Your task to perform on an android device: Go to Android settings Image 0: 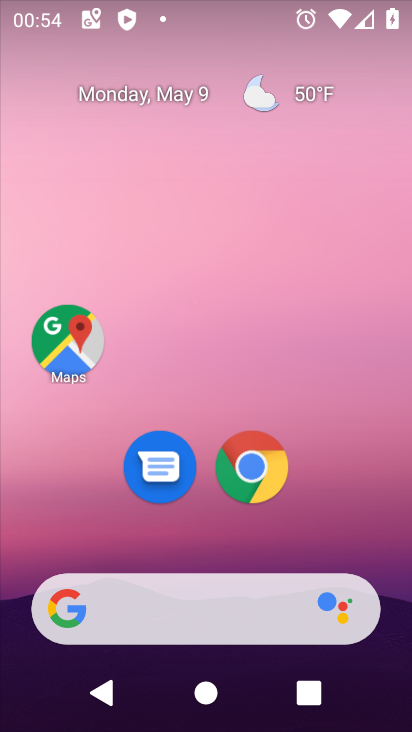
Step 0: drag from (204, 548) to (221, 48)
Your task to perform on an android device: Go to Android settings Image 1: 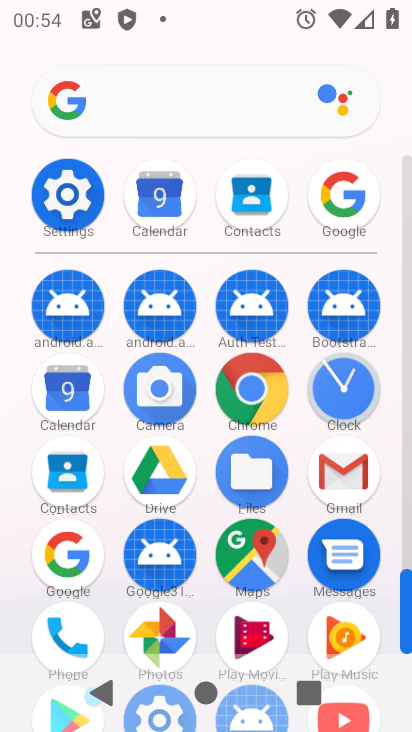
Step 1: click (63, 196)
Your task to perform on an android device: Go to Android settings Image 2: 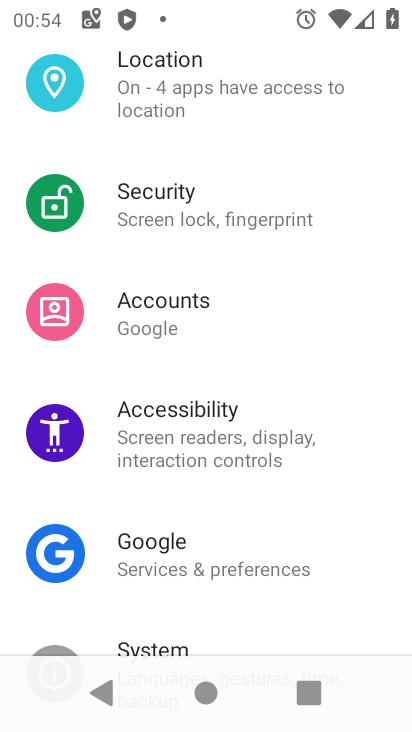
Step 2: drag from (229, 586) to (240, 104)
Your task to perform on an android device: Go to Android settings Image 3: 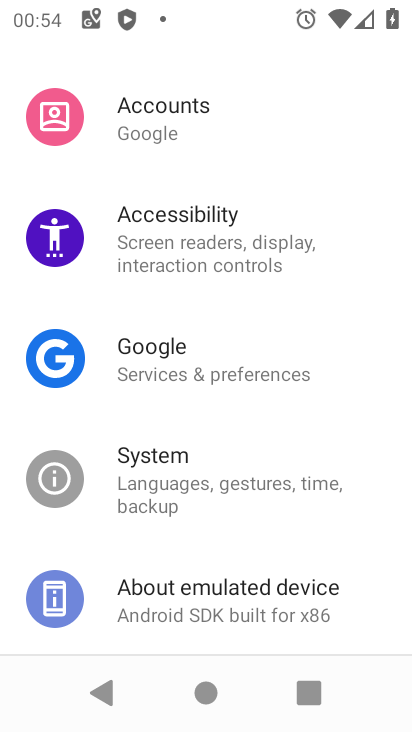
Step 3: click (216, 576)
Your task to perform on an android device: Go to Android settings Image 4: 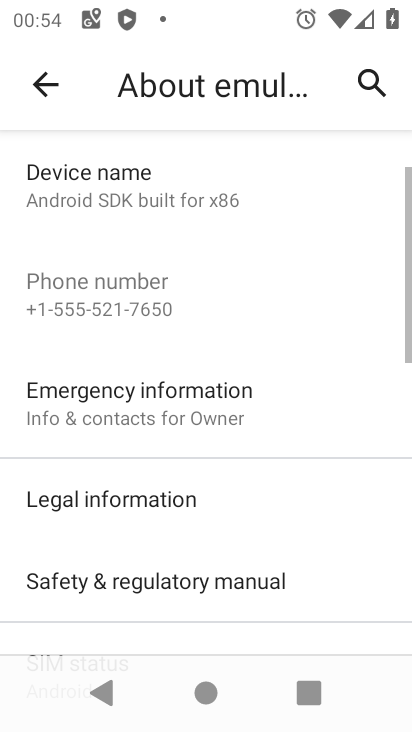
Step 4: drag from (173, 594) to (183, 183)
Your task to perform on an android device: Go to Android settings Image 5: 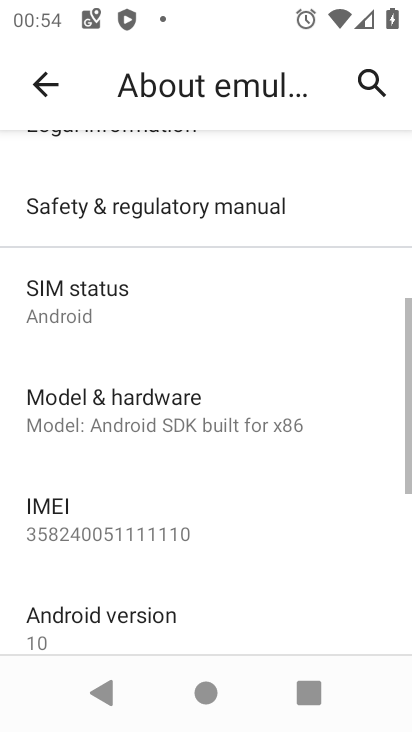
Step 5: click (150, 611)
Your task to perform on an android device: Go to Android settings Image 6: 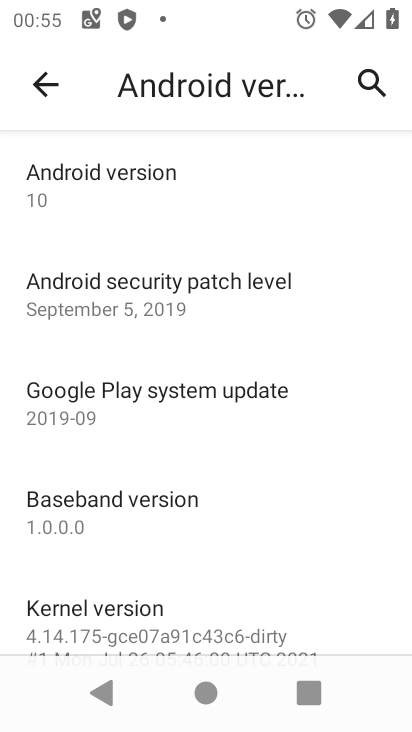
Step 6: task complete